Your task to perform on an android device: When is my next meeting? Image 0: 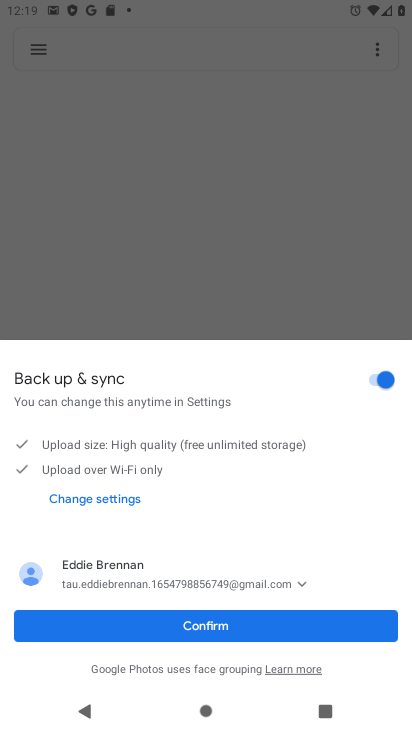
Step 0: press home button
Your task to perform on an android device: When is my next meeting? Image 1: 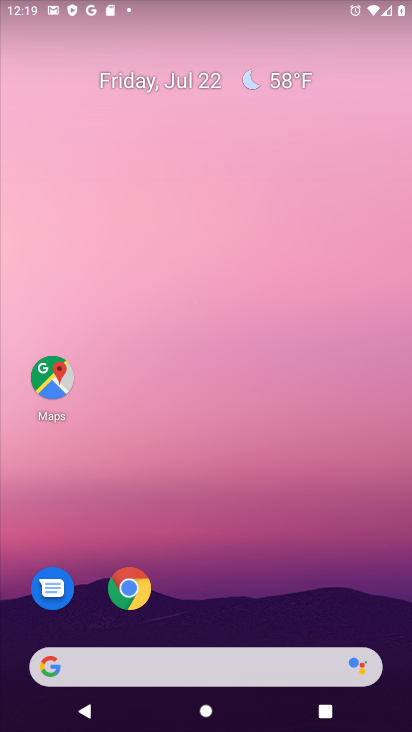
Step 1: drag from (277, 606) to (277, 419)
Your task to perform on an android device: When is my next meeting? Image 2: 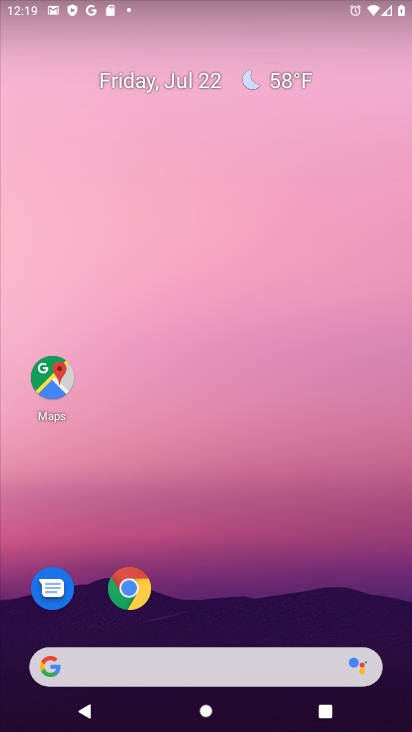
Step 2: drag from (301, 633) to (294, 137)
Your task to perform on an android device: When is my next meeting? Image 3: 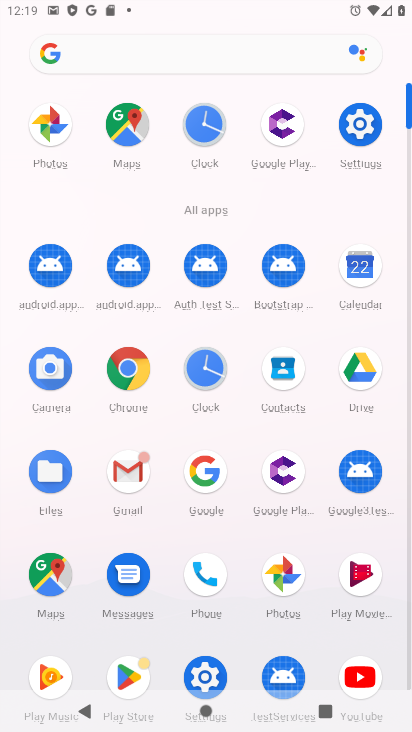
Step 3: click (361, 263)
Your task to perform on an android device: When is my next meeting? Image 4: 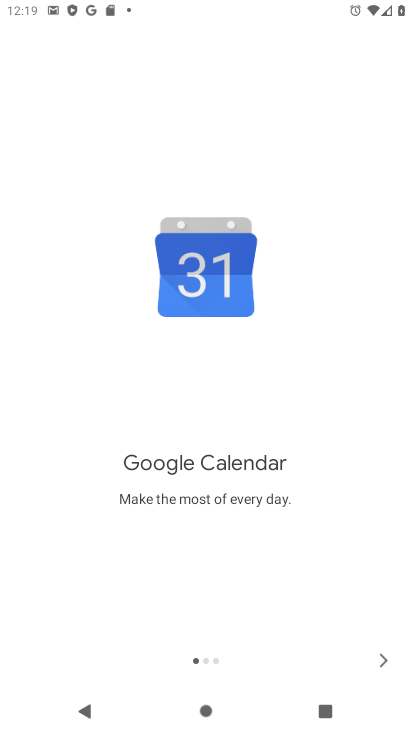
Step 4: click (381, 658)
Your task to perform on an android device: When is my next meeting? Image 5: 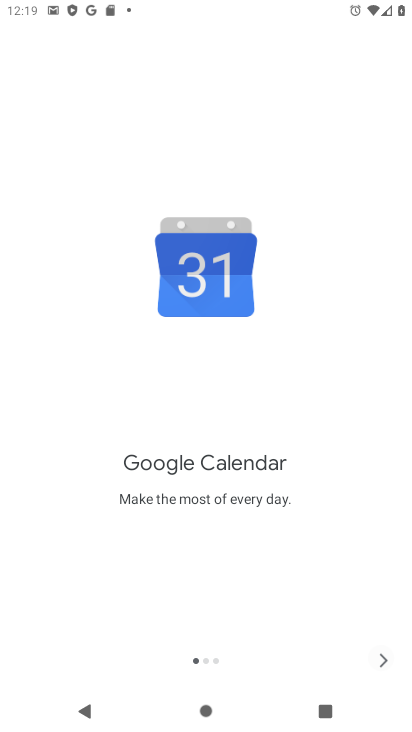
Step 5: click (381, 658)
Your task to perform on an android device: When is my next meeting? Image 6: 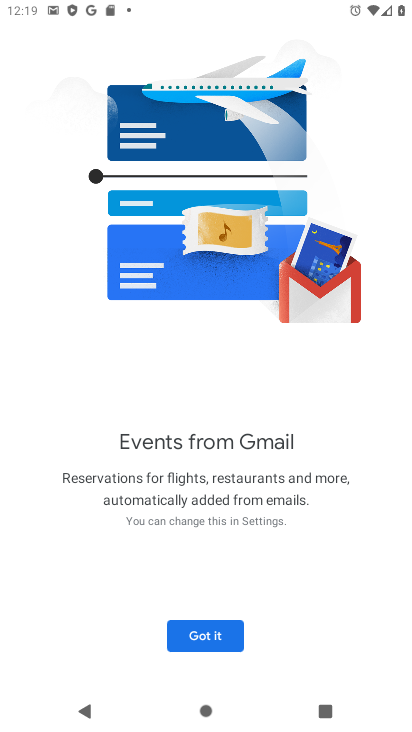
Step 6: click (381, 658)
Your task to perform on an android device: When is my next meeting? Image 7: 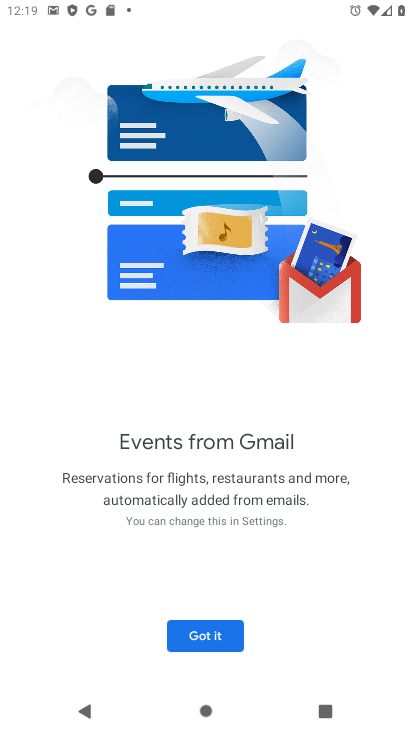
Step 7: click (215, 624)
Your task to perform on an android device: When is my next meeting? Image 8: 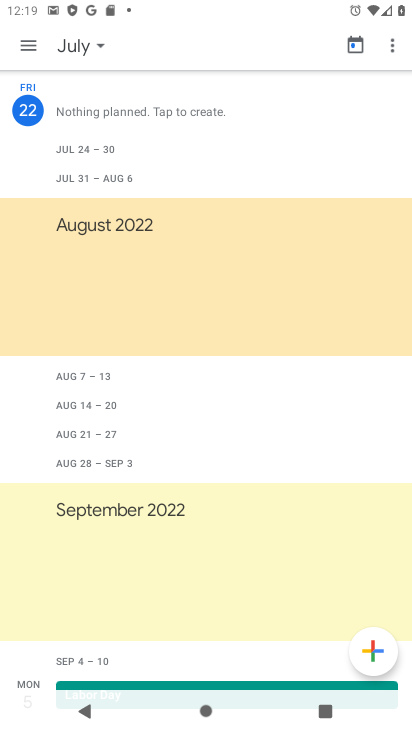
Step 8: click (98, 37)
Your task to perform on an android device: When is my next meeting? Image 9: 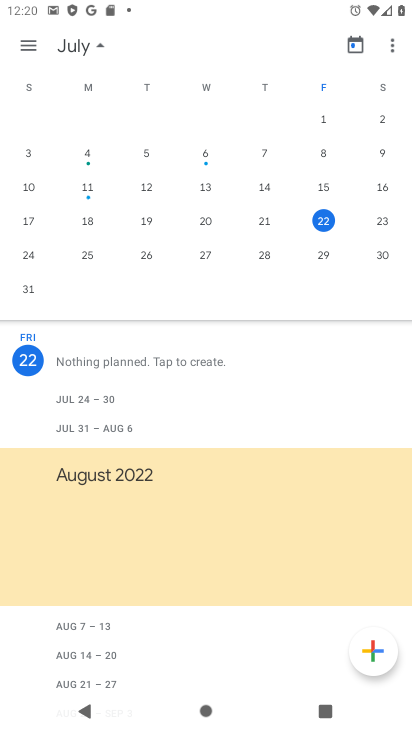
Step 9: click (325, 229)
Your task to perform on an android device: When is my next meeting? Image 10: 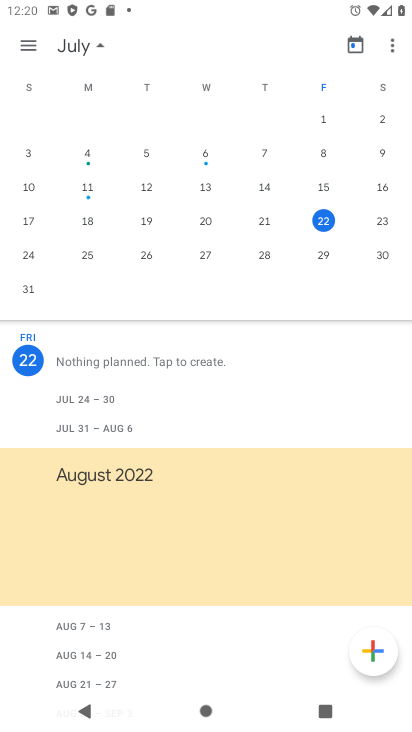
Step 10: task complete